Your task to perform on an android device: change the clock display to digital Image 0: 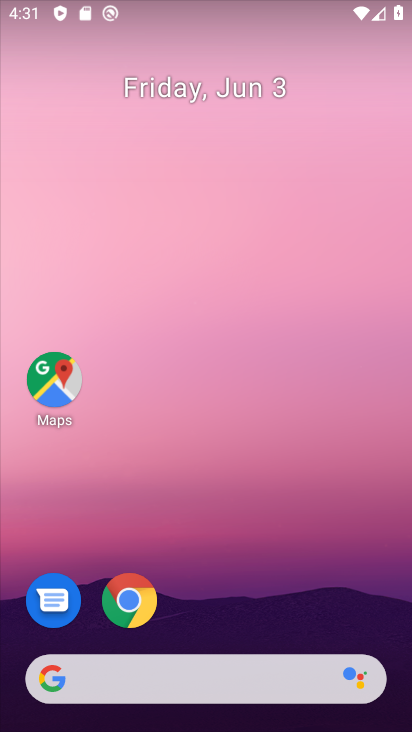
Step 0: click (382, 44)
Your task to perform on an android device: change the clock display to digital Image 1: 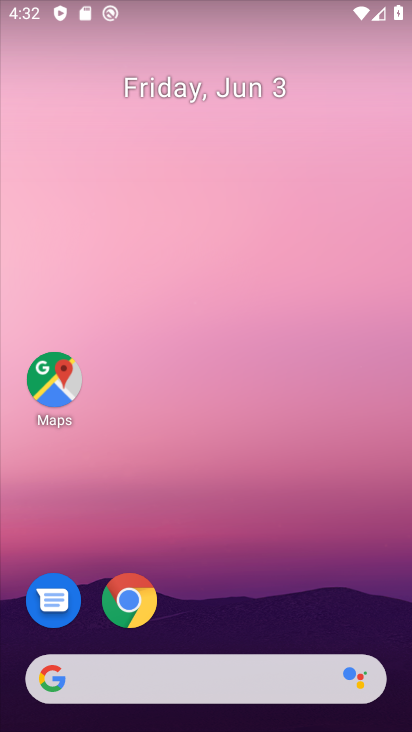
Step 1: drag from (187, 615) to (303, 117)
Your task to perform on an android device: change the clock display to digital Image 2: 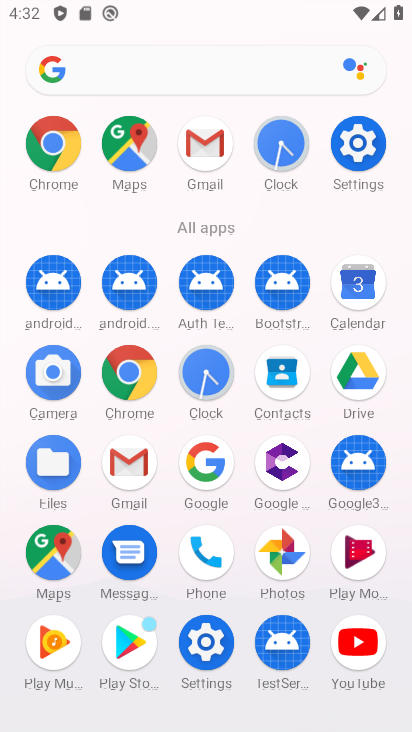
Step 2: click (207, 388)
Your task to perform on an android device: change the clock display to digital Image 3: 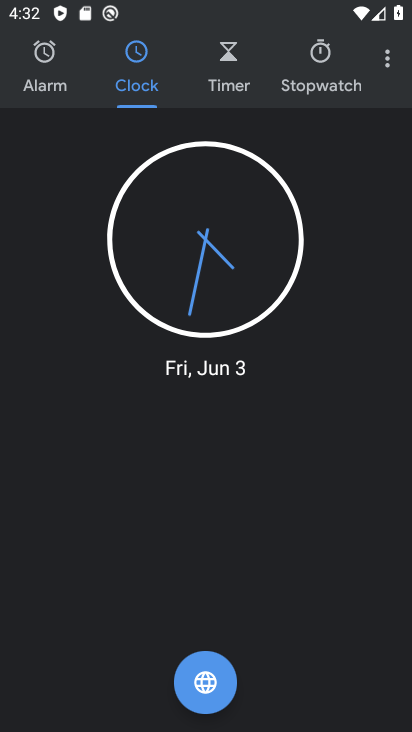
Step 3: click (389, 70)
Your task to perform on an android device: change the clock display to digital Image 4: 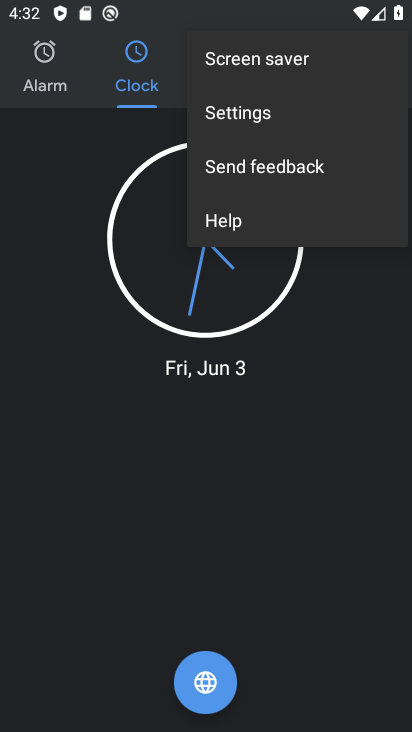
Step 4: click (253, 119)
Your task to perform on an android device: change the clock display to digital Image 5: 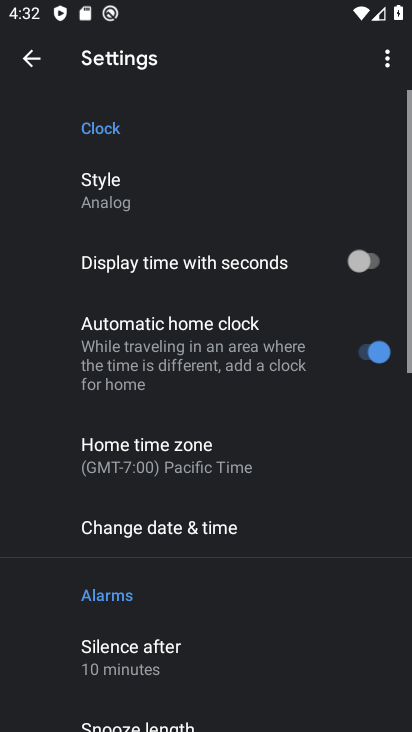
Step 5: click (122, 199)
Your task to perform on an android device: change the clock display to digital Image 6: 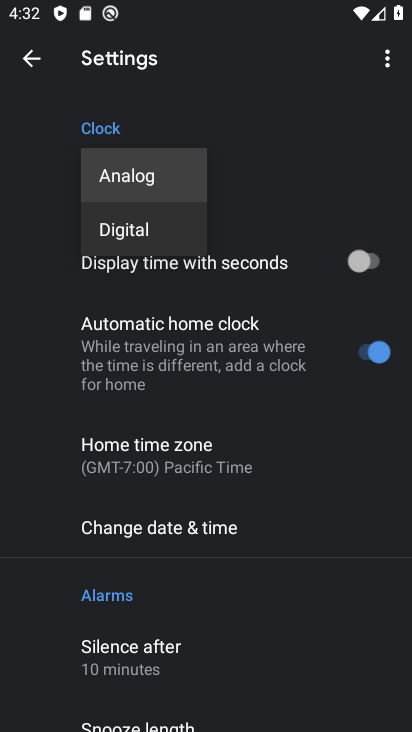
Step 6: click (145, 227)
Your task to perform on an android device: change the clock display to digital Image 7: 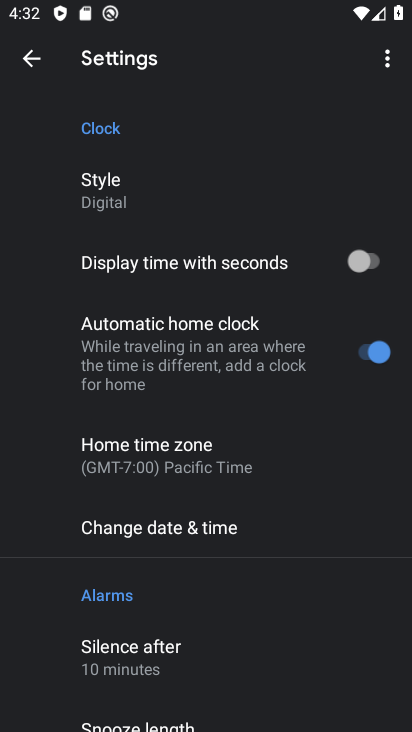
Step 7: task complete